Your task to perform on an android device: check storage Image 0: 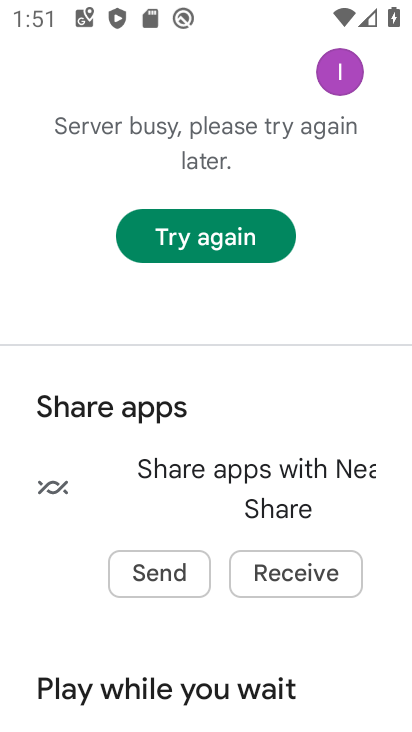
Step 0: press home button
Your task to perform on an android device: check storage Image 1: 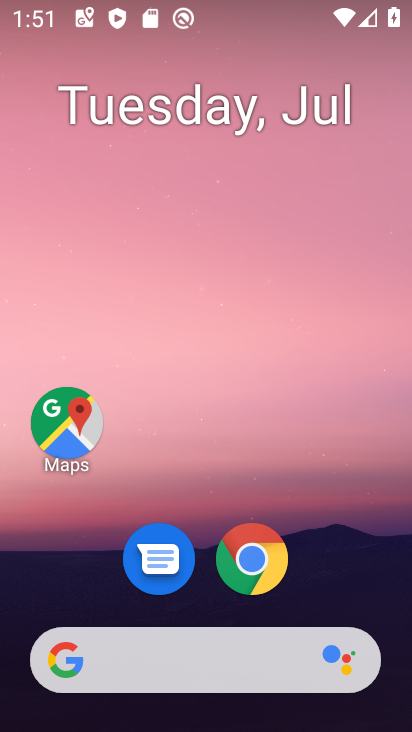
Step 1: drag from (359, 591) to (365, 206)
Your task to perform on an android device: check storage Image 2: 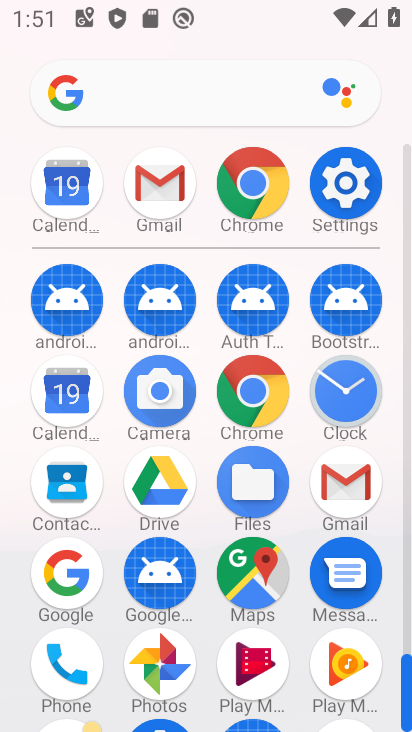
Step 2: click (355, 202)
Your task to perform on an android device: check storage Image 3: 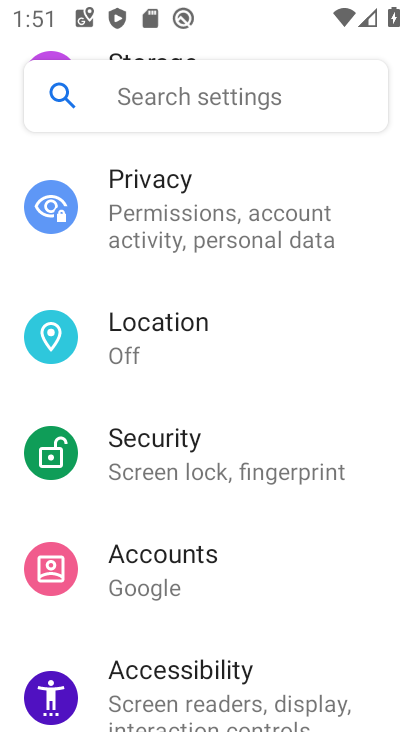
Step 3: drag from (353, 307) to (356, 381)
Your task to perform on an android device: check storage Image 4: 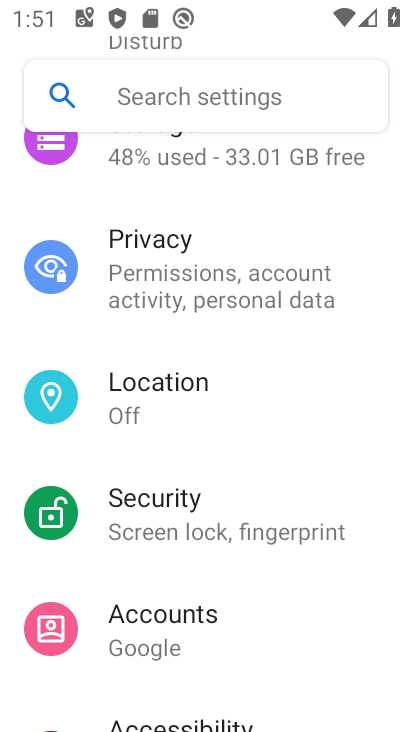
Step 4: drag from (363, 275) to (362, 354)
Your task to perform on an android device: check storage Image 5: 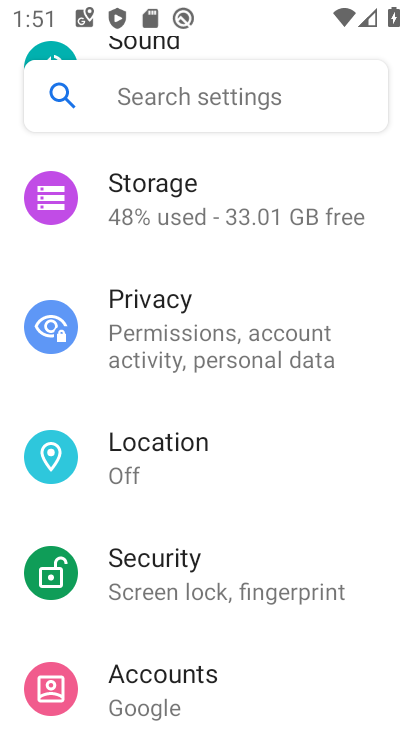
Step 5: drag from (369, 279) to (371, 358)
Your task to perform on an android device: check storage Image 6: 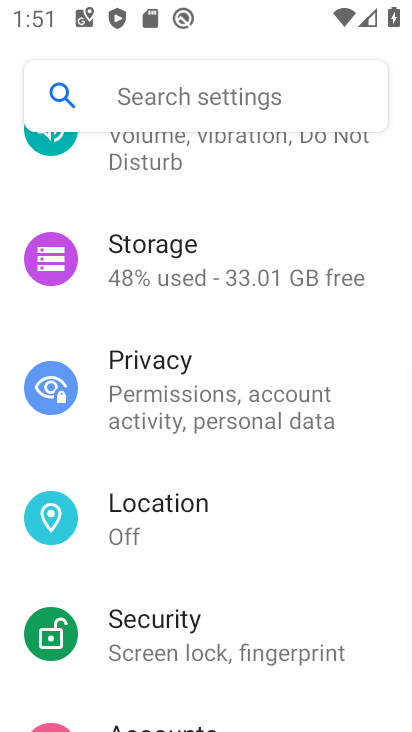
Step 6: drag from (383, 223) to (383, 332)
Your task to perform on an android device: check storage Image 7: 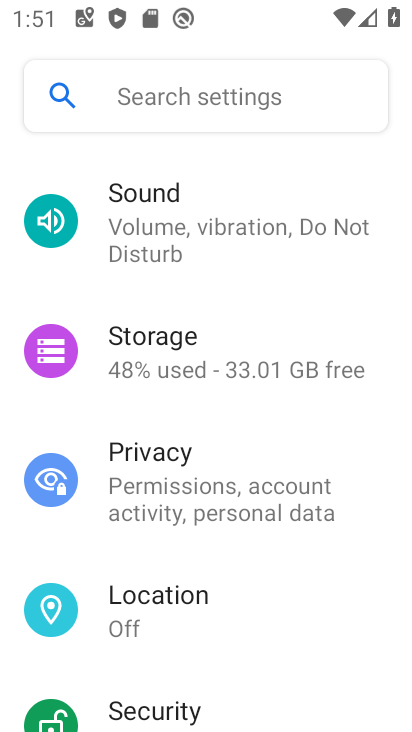
Step 7: drag from (383, 240) to (383, 349)
Your task to perform on an android device: check storage Image 8: 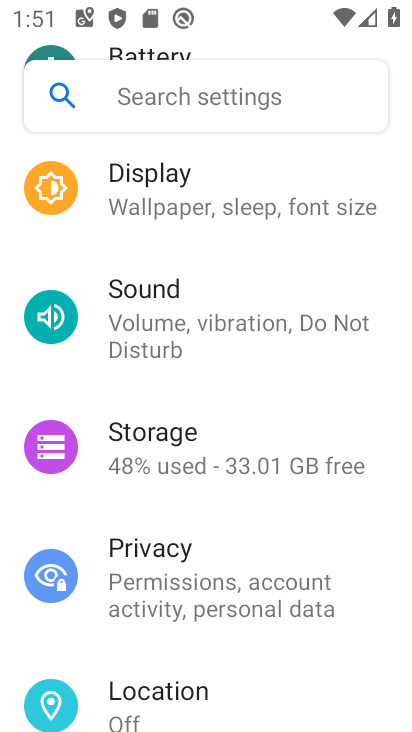
Step 8: drag from (384, 259) to (382, 362)
Your task to perform on an android device: check storage Image 9: 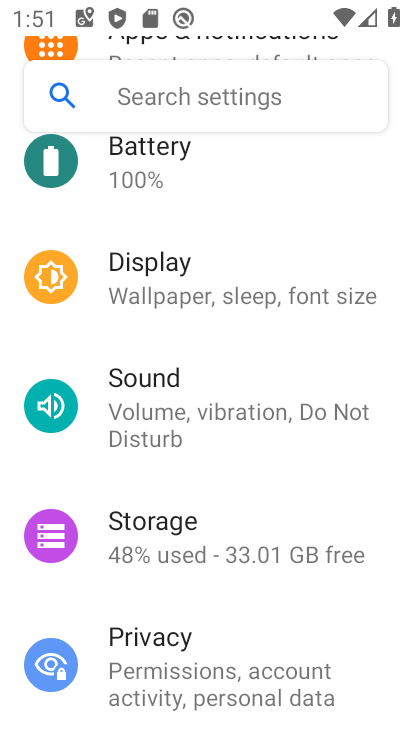
Step 9: click (309, 549)
Your task to perform on an android device: check storage Image 10: 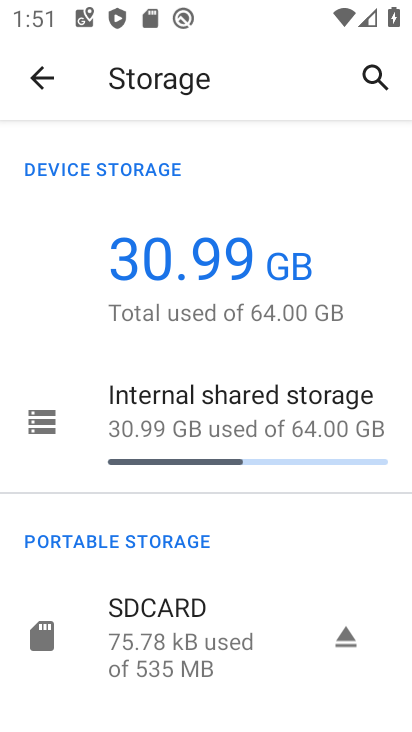
Step 10: task complete